Your task to perform on an android device: open a new tab in the chrome app Image 0: 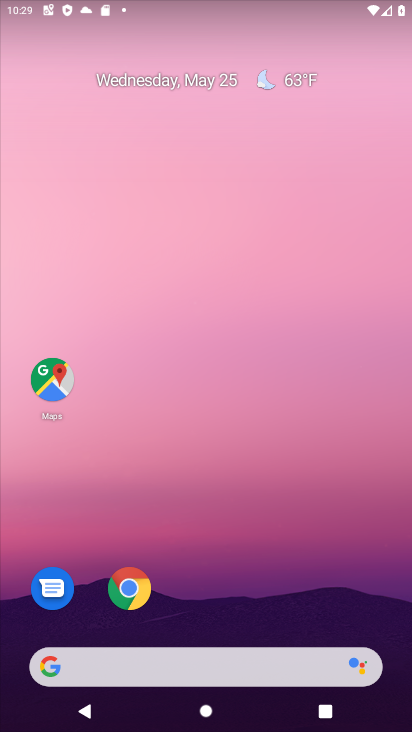
Step 0: click (139, 587)
Your task to perform on an android device: open a new tab in the chrome app Image 1: 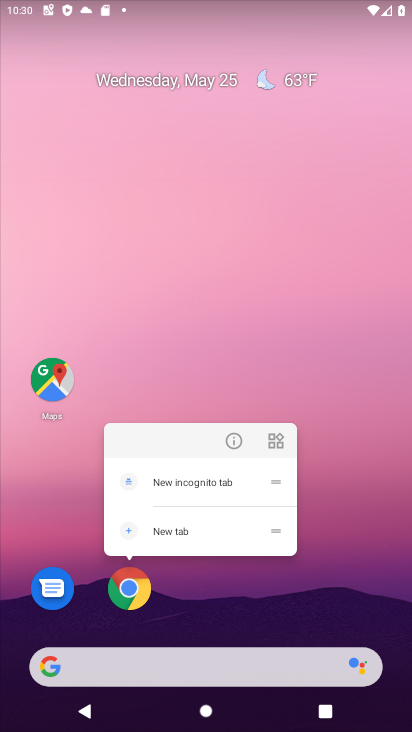
Step 1: click (120, 594)
Your task to perform on an android device: open a new tab in the chrome app Image 2: 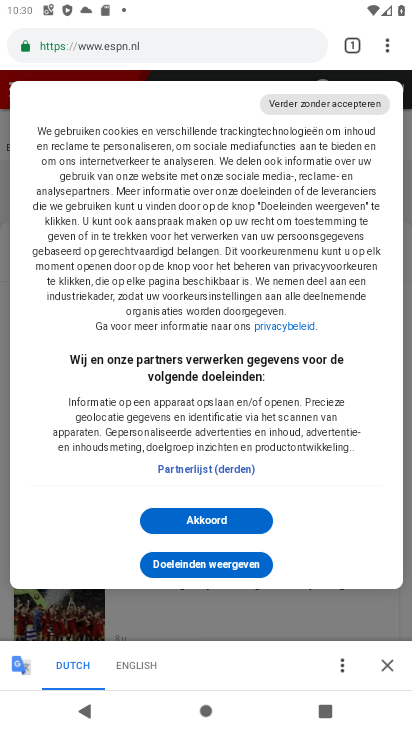
Step 2: click (392, 36)
Your task to perform on an android device: open a new tab in the chrome app Image 3: 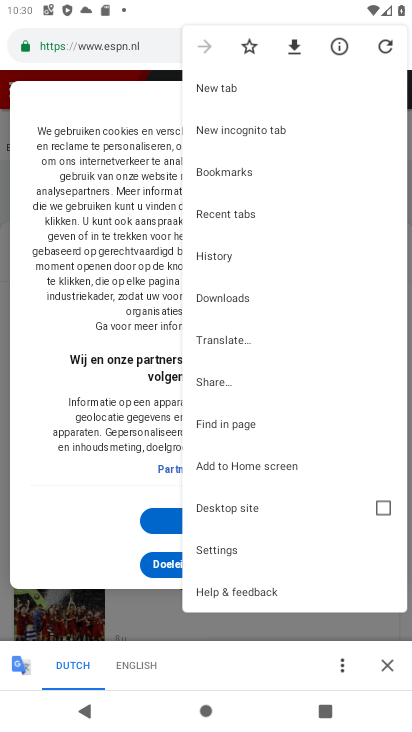
Step 3: click (278, 86)
Your task to perform on an android device: open a new tab in the chrome app Image 4: 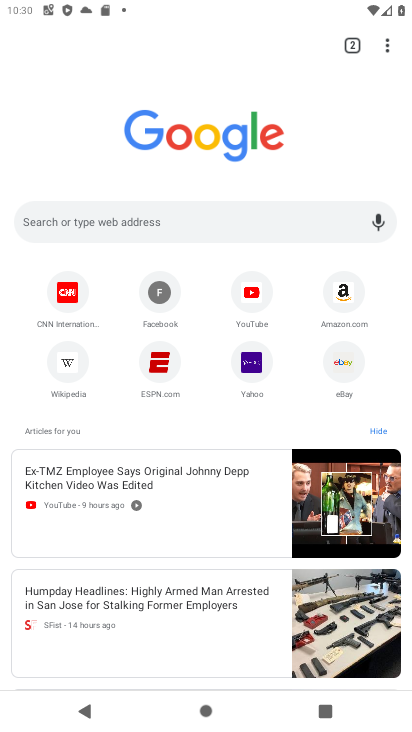
Step 4: task complete